Your task to perform on an android device: change the clock style Image 0: 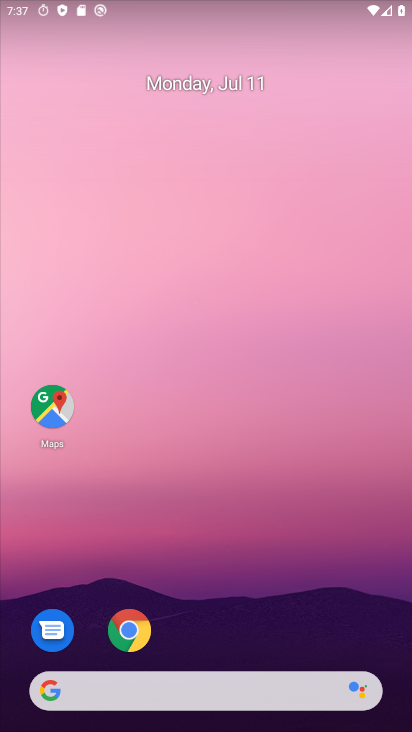
Step 0: drag from (173, 645) to (269, 101)
Your task to perform on an android device: change the clock style Image 1: 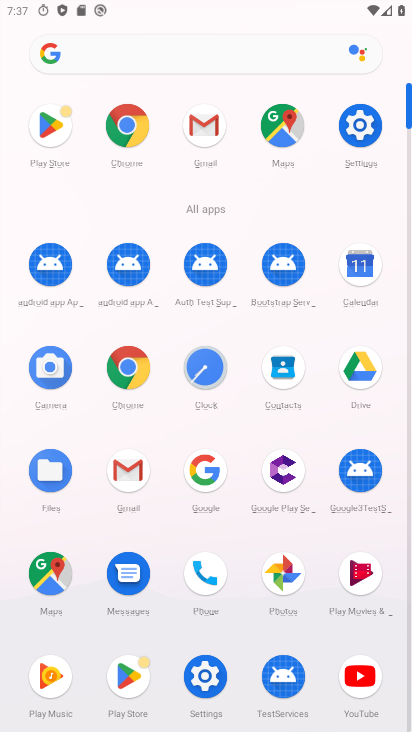
Step 1: click (199, 370)
Your task to perform on an android device: change the clock style Image 2: 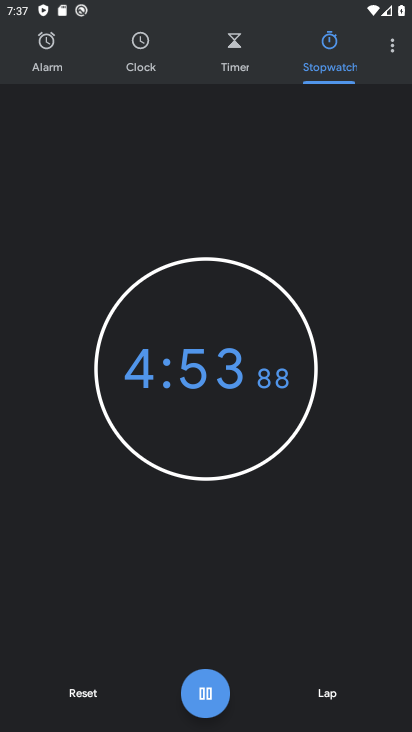
Step 2: click (391, 47)
Your task to perform on an android device: change the clock style Image 3: 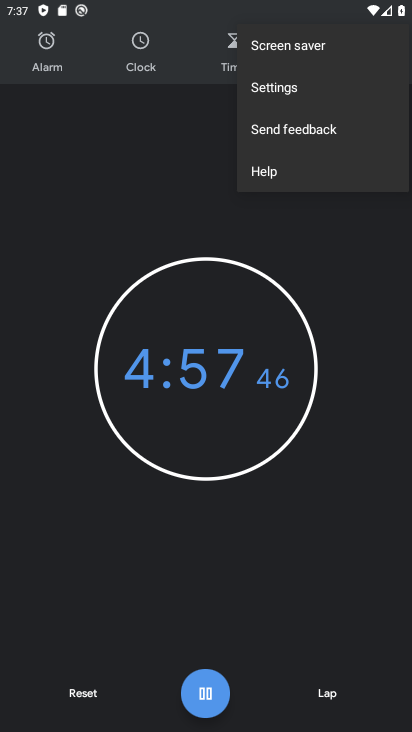
Step 3: click (265, 98)
Your task to perform on an android device: change the clock style Image 4: 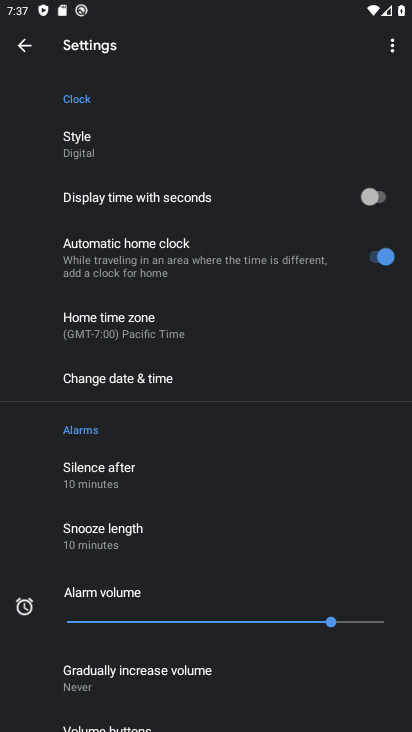
Step 4: click (90, 157)
Your task to perform on an android device: change the clock style Image 5: 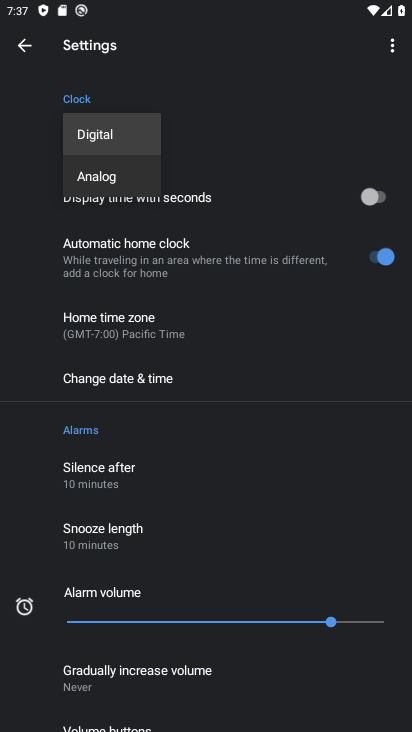
Step 5: click (111, 170)
Your task to perform on an android device: change the clock style Image 6: 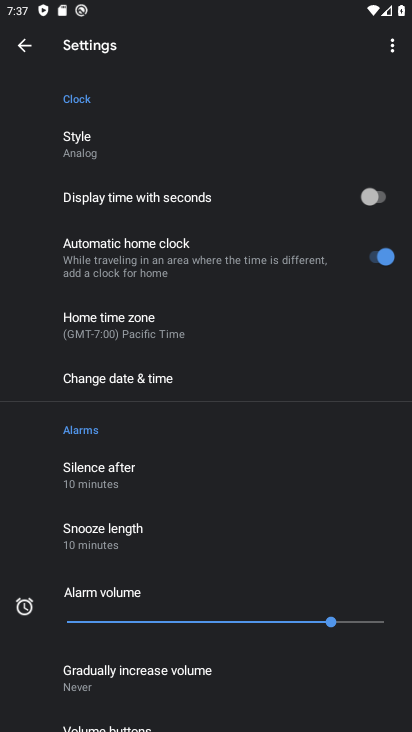
Step 6: task complete